Your task to perform on an android device: turn off airplane mode Image 0: 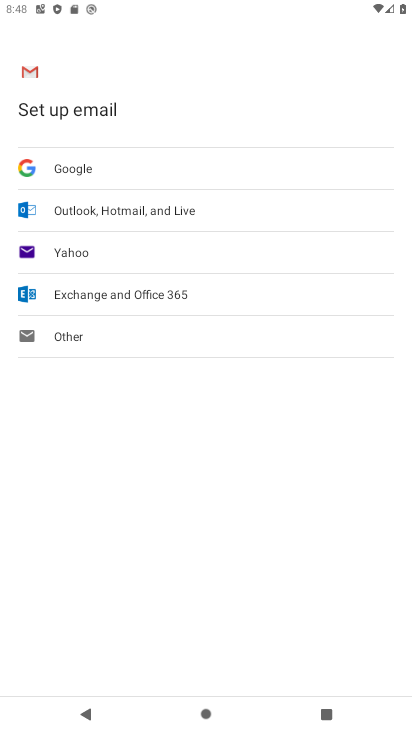
Step 0: press home button
Your task to perform on an android device: turn off airplane mode Image 1: 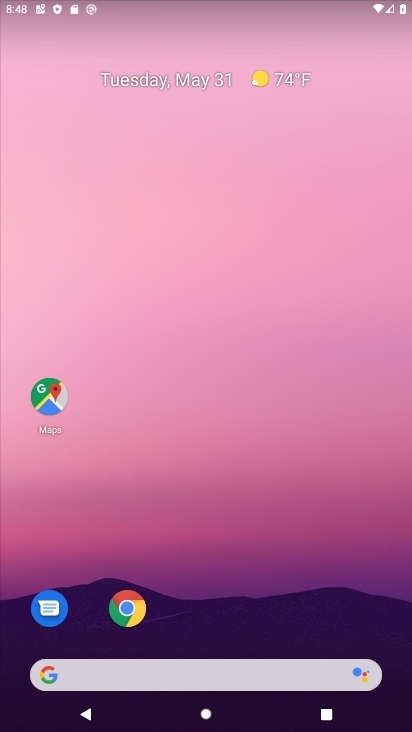
Step 1: drag from (235, 654) to (254, 271)
Your task to perform on an android device: turn off airplane mode Image 2: 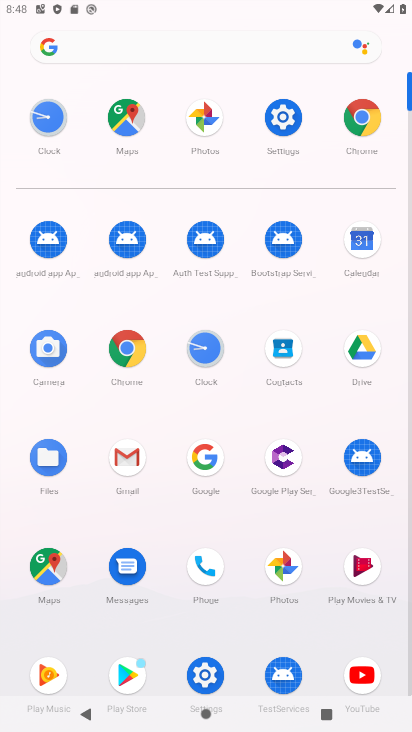
Step 2: click (287, 132)
Your task to perform on an android device: turn off airplane mode Image 3: 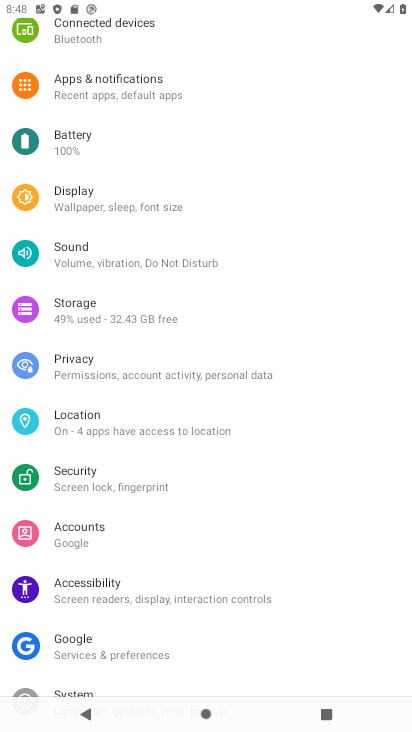
Step 3: drag from (181, 238) to (131, 457)
Your task to perform on an android device: turn off airplane mode Image 4: 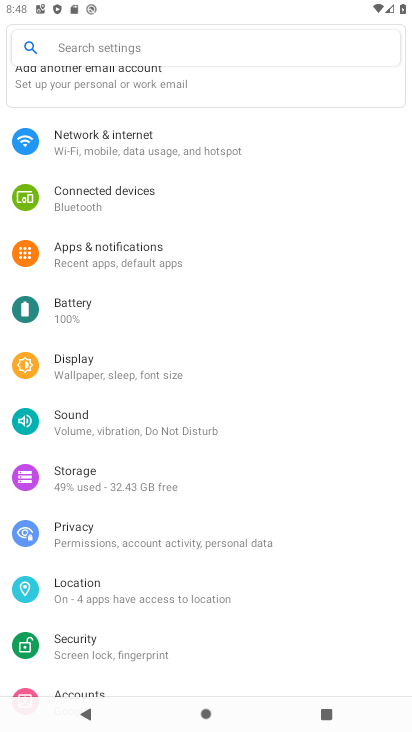
Step 4: click (126, 164)
Your task to perform on an android device: turn off airplane mode Image 5: 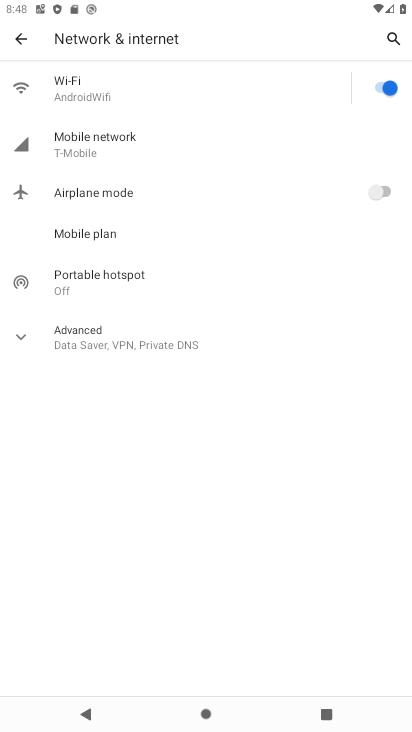
Step 5: task complete